Your task to perform on an android device: visit the assistant section in the google photos Image 0: 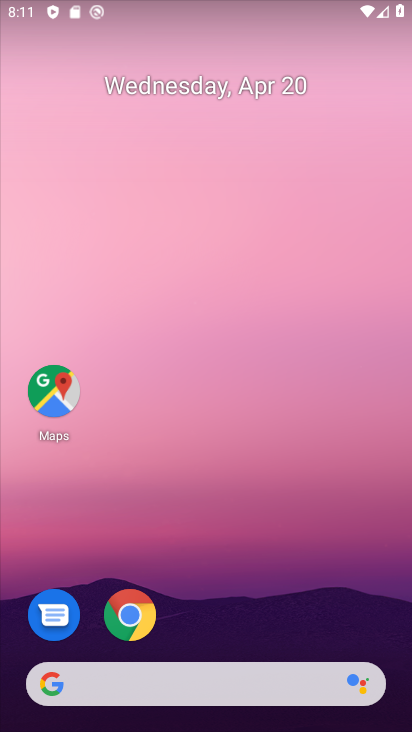
Step 0: drag from (221, 610) to (288, 119)
Your task to perform on an android device: visit the assistant section in the google photos Image 1: 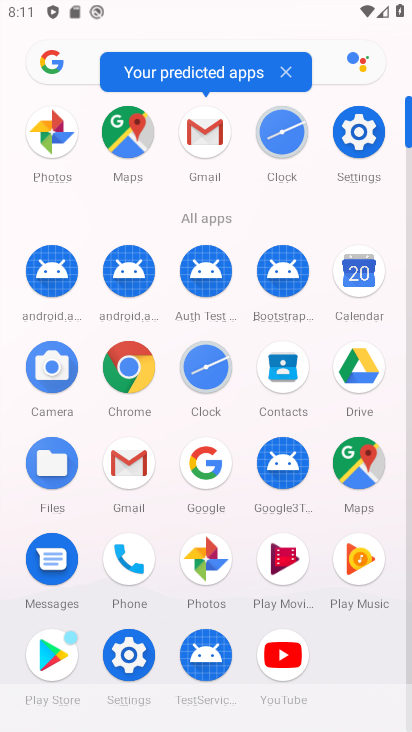
Step 1: click (203, 566)
Your task to perform on an android device: visit the assistant section in the google photos Image 2: 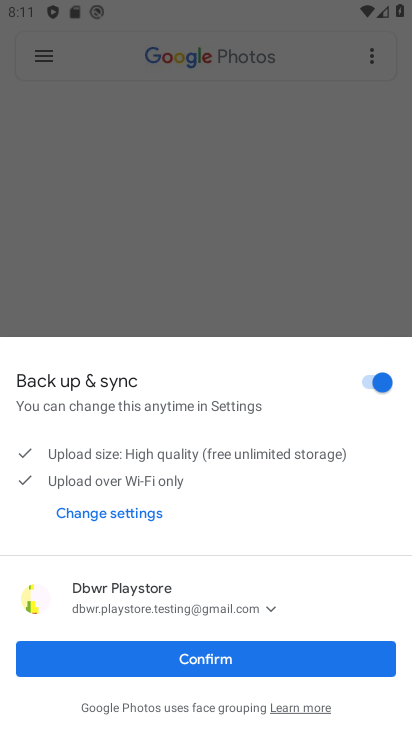
Step 2: click (217, 663)
Your task to perform on an android device: visit the assistant section in the google photos Image 3: 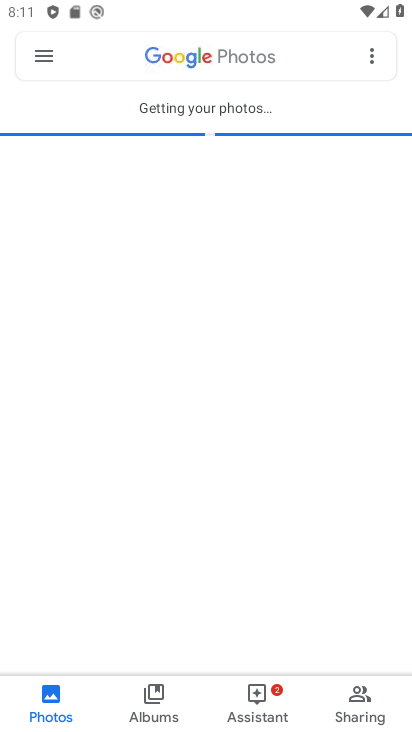
Step 3: click (255, 705)
Your task to perform on an android device: visit the assistant section in the google photos Image 4: 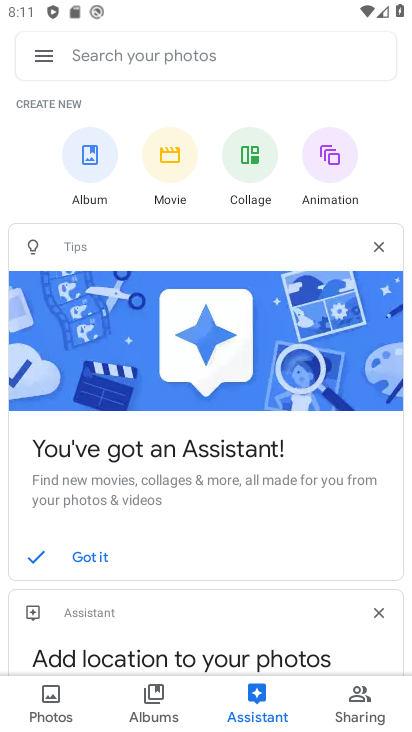
Step 4: task complete